Your task to perform on an android device: Go to Reddit.com Image 0: 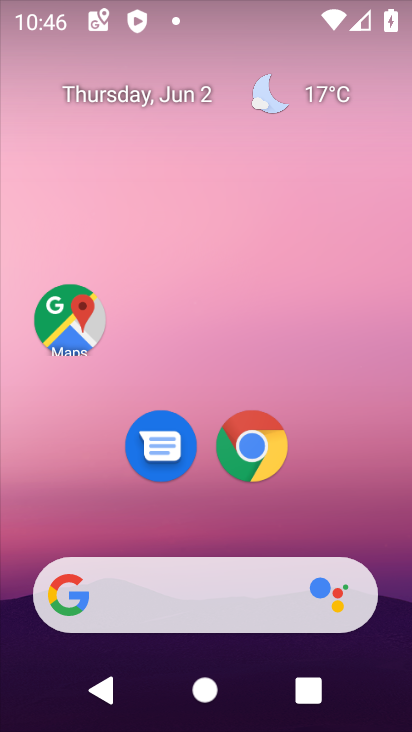
Step 0: drag from (326, 447) to (275, 1)
Your task to perform on an android device: Go to Reddit.com Image 1: 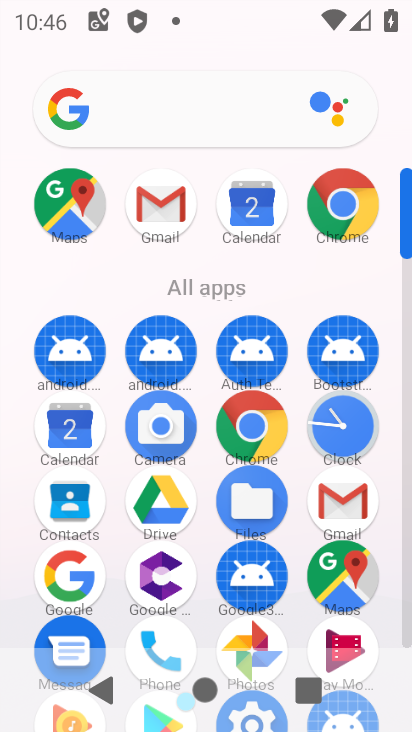
Step 1: click (340, 217)
Your task to perform on an android device: Go to Reddit.com Image 2: 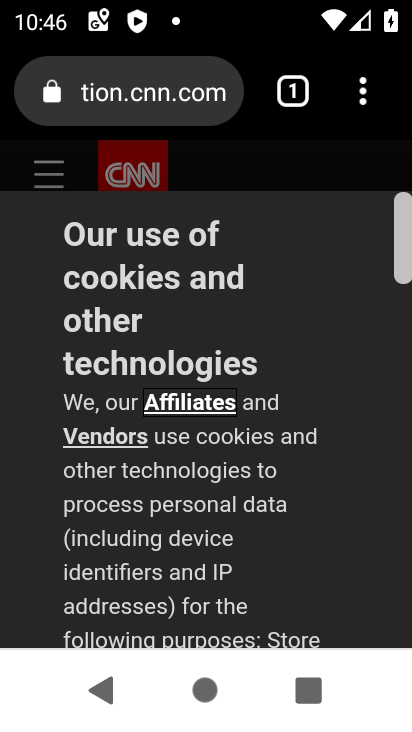
Step 2: click (161, 100)
Your task to perform on an android device: Go to Reddit.com Image 3: 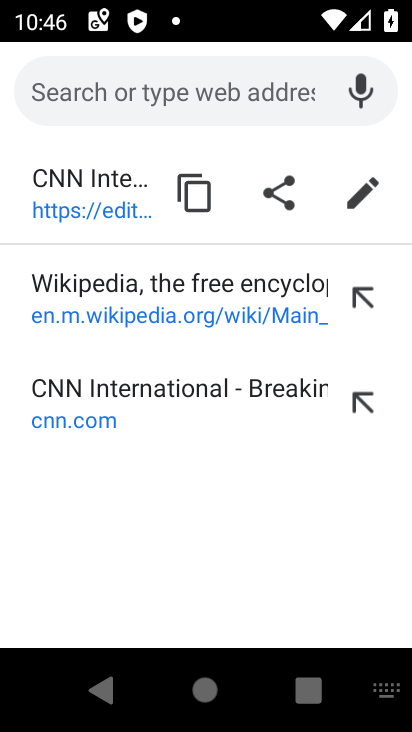
Step 3: type "reddit.com"
Your task to perform on an android device: Go to Reddit.com Image 4: 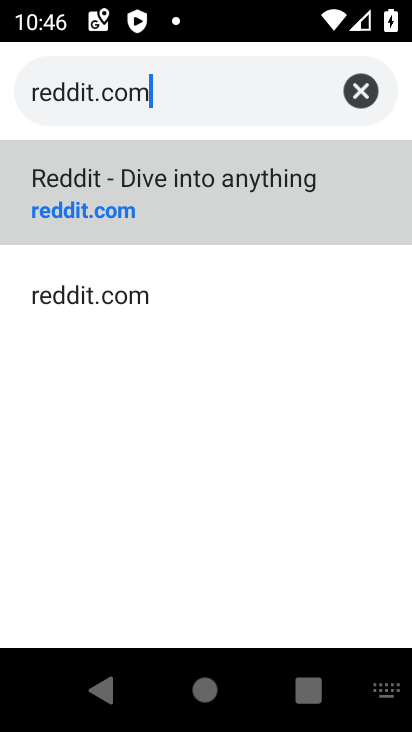
Step 4: click (105, 211)
Your task to perform on an android device: Go to Reddit.com Image 5: 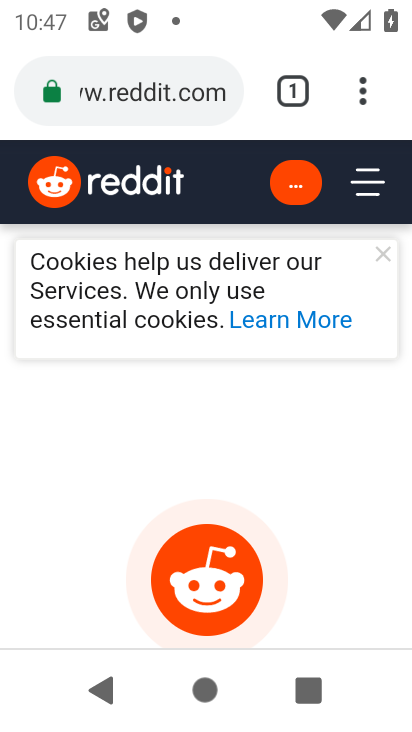
Step 5: task complete